Your task to perform on an android device: open sync settings in chrome Image 0: 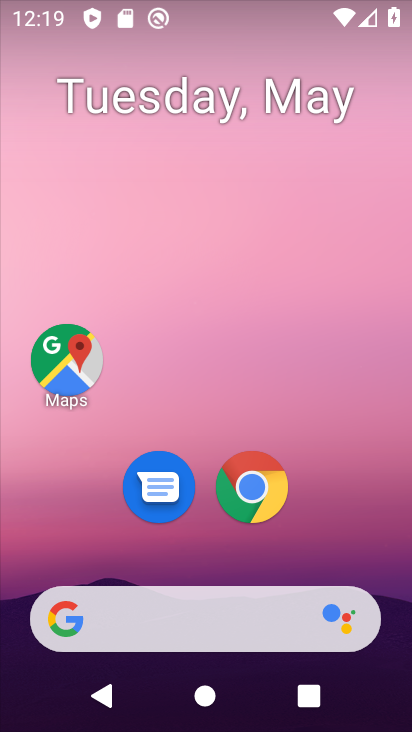
Step 0: click (256, 489)
Your task to perform on an android device: open sync settings in chrome Image 1: 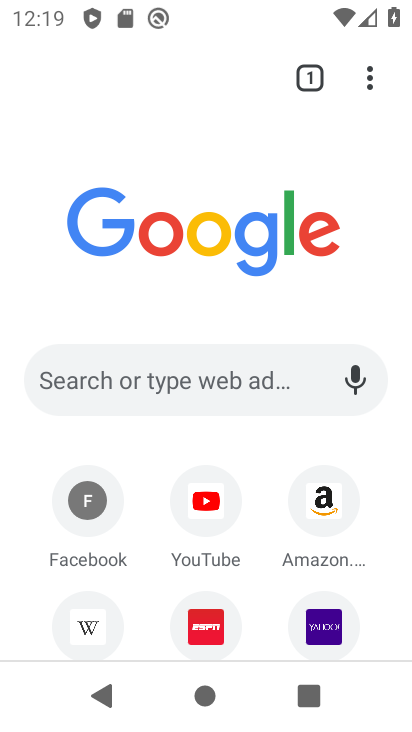
Step 1: click (368, 82)
Your task to perform on an android device: open sync settings in chrome Image 2: 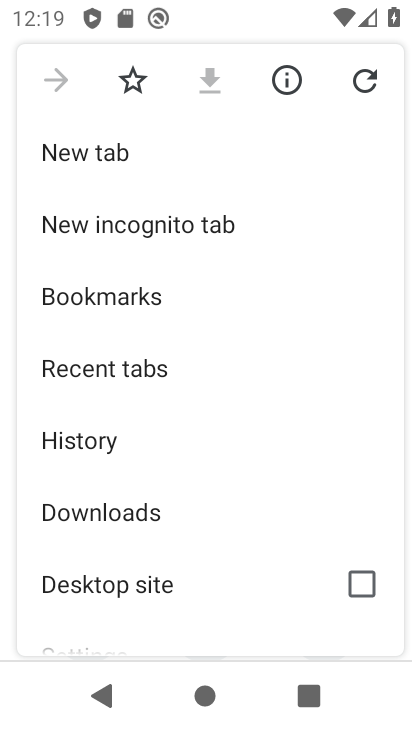
Step 2: drag from (231, 549) to (201, 247)
Your task to perform on an android device: open sync settings in chrome Image 3: 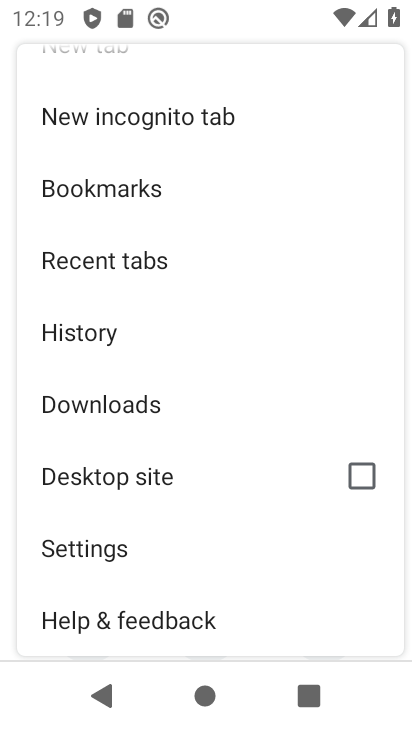
Step 3: click (129, 551)
Your task to perform on an android device: open sync settings in chrome Image 4: 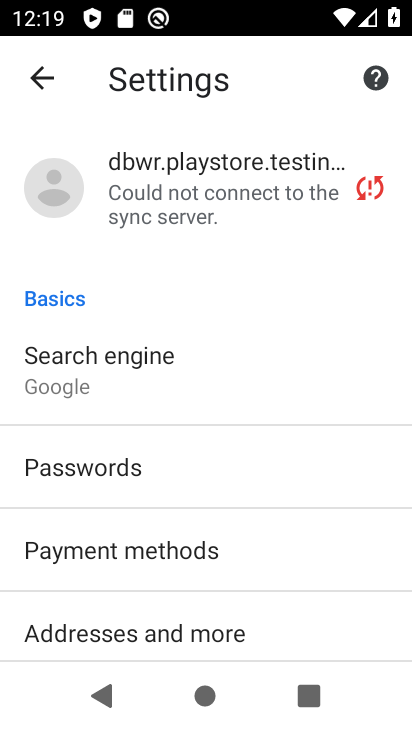
Step 4: click (199, 196)
Your task to perform on an android device: open sync settings in chrome Image 5: 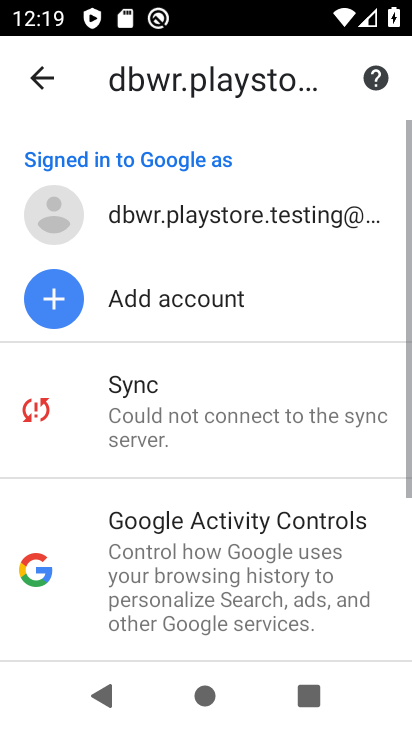
Step 5: click (176, 421)
Your task to perform on an android device: open sync settings in chrome Image 6: 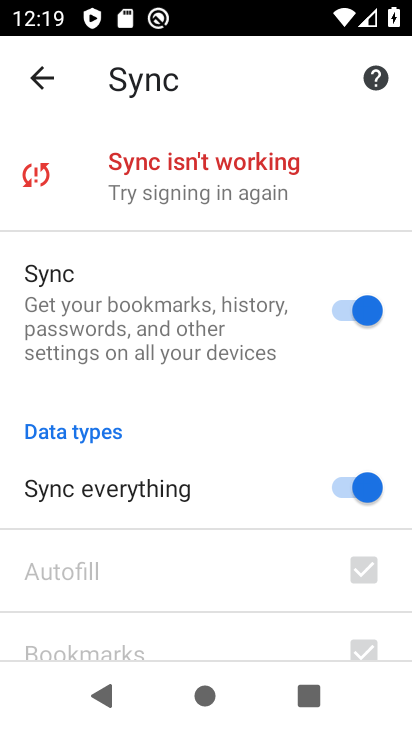
Step 6: task complete